Your task to perform on an android device: Go to Amazon Image 0: 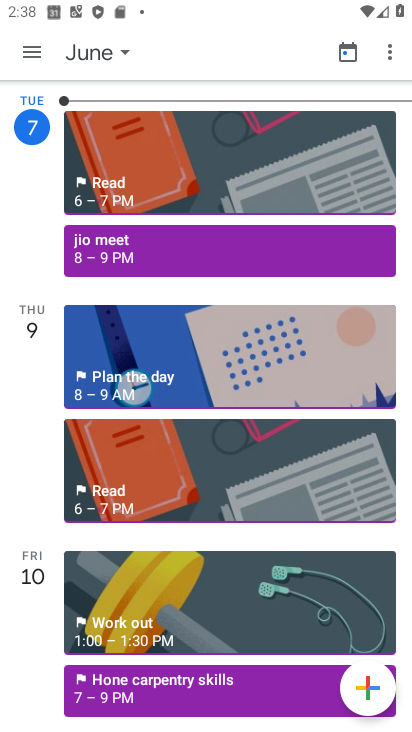
Step 0: press home button
Your task to perform on an android device: Go to Amazon Image 1: 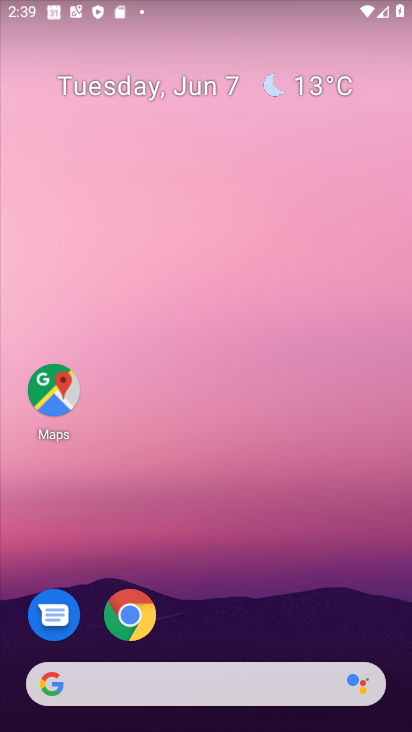
Step 1: click (134, 625)
Your task to perform on an android device: Go to Amazon Image 2: 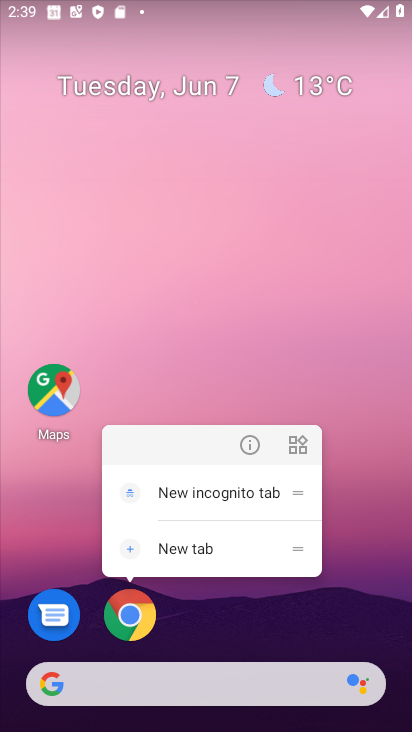
Step 2: click (137, 623)
Your task to perform on an android device: Go to Amazon Image 3: 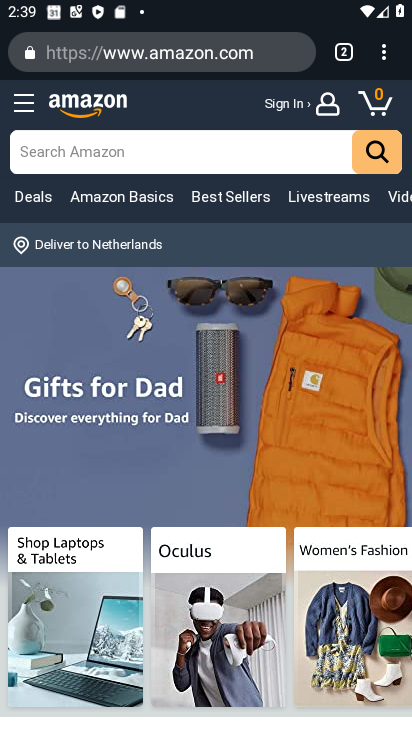
Step 3: task complete